Your task to perform on an android device: Go to Wikipedia Image 0: 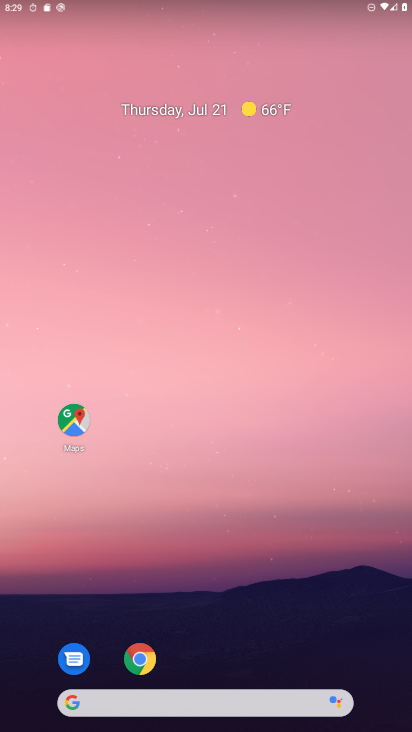
Step 0: click (333, 525)
Your task to perform on an android device: Go to Wikipedia Image 1: 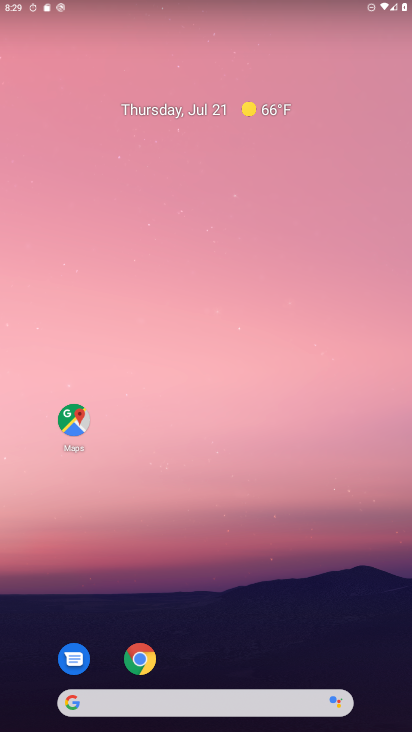
Step 1: drag from (191, 629) to (338, 146)
Your task to perform on an android device: Go to Wikipedia Image 2: 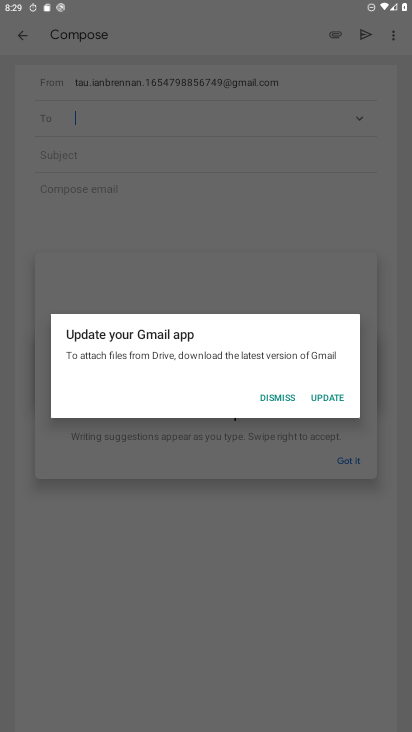
Step 2: press home button
Your task to perform on an android device: Go to Wikipedia Image 3: 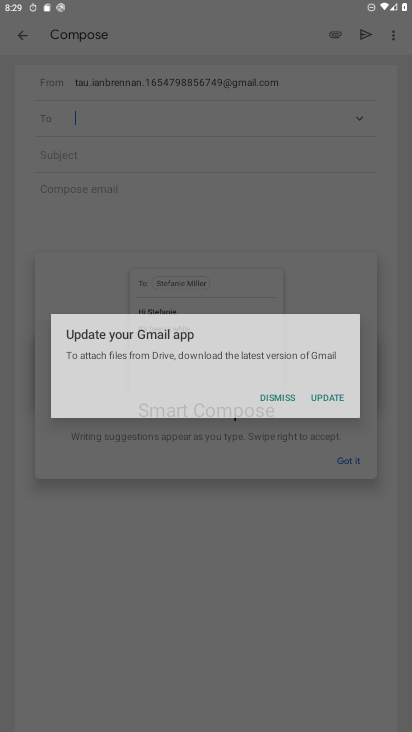
Step 3: press home button
Your task to perform on an android device: Go to Wikipedia Image 4: 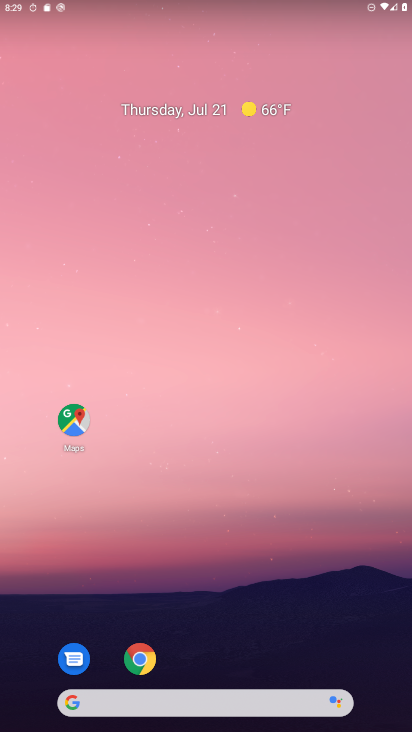
Step 4: drag from (197, 602) to (263, 21)
Your task to perform on an android device: Go to Wikipedia Image 5: 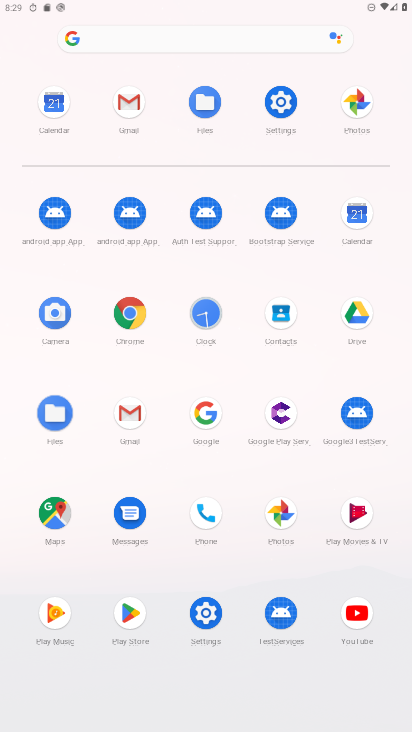
Step 5: click (128, 38)
Your task to perform on an android device: Go to Wikipedia Image 6: 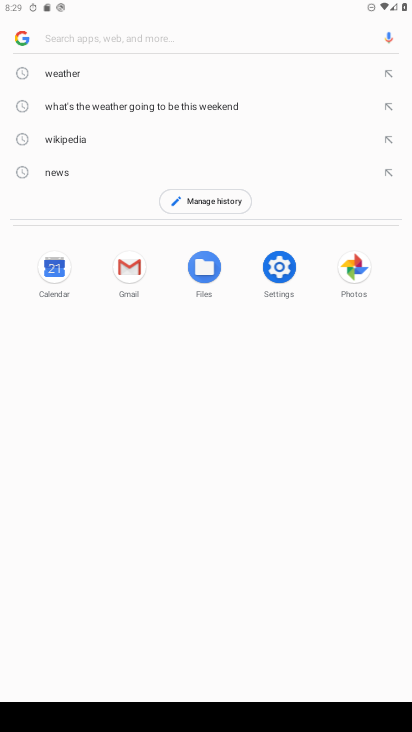
Step 6: click (79, 138)
Your task to perform on an android device: Go to Wikipedia Image 7: 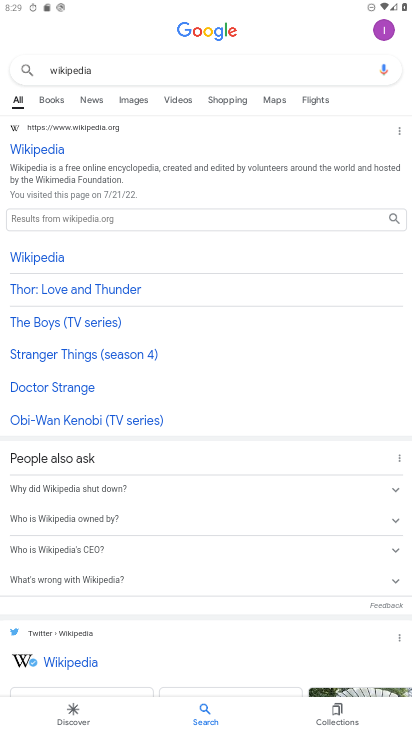
Step 7: click (30, 142)
Your task to perform on an android device: Go to Wikipedia Image 8: 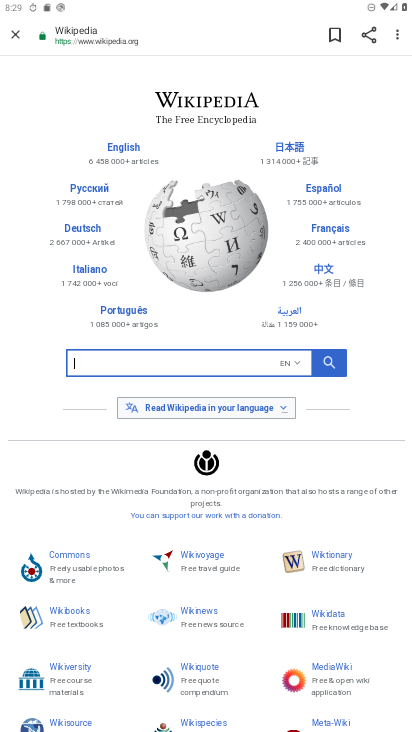
Step 8: task complete